Your task to perform on an android device: Open Maps and search for coffee Image 0: 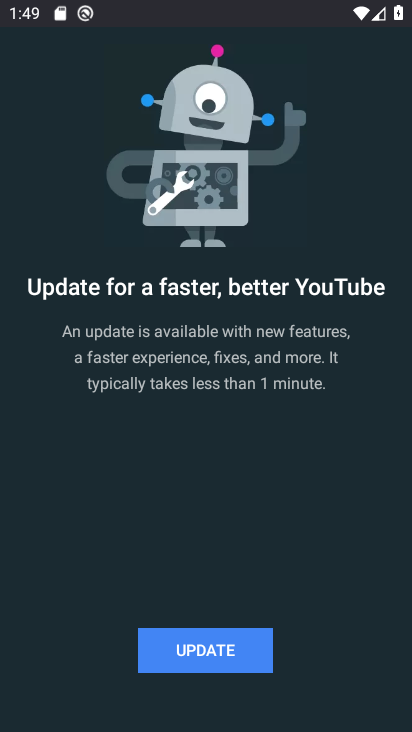
Step 0: press back button
Your task to perform on an android device: Open Maps and search for coffee Image 1: 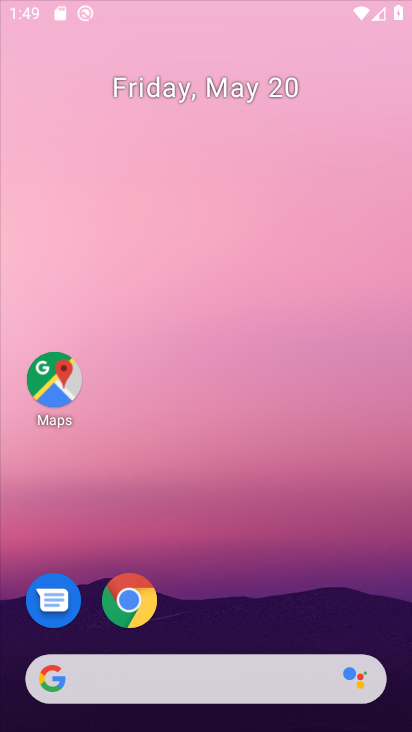
Step 1: press home button
Your task to perform on an android device: Open Maps and search for coffee Image 2: 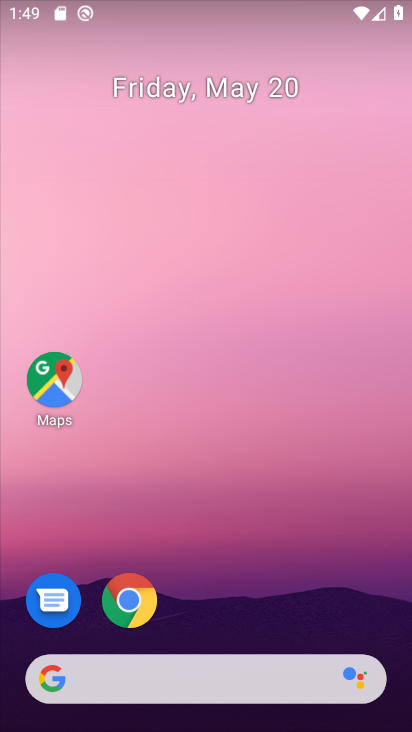
Step 2: drag from (277, 503) to (230, 730)
Your task to perform on an android device: Open Maps and search for coffee Image 3: 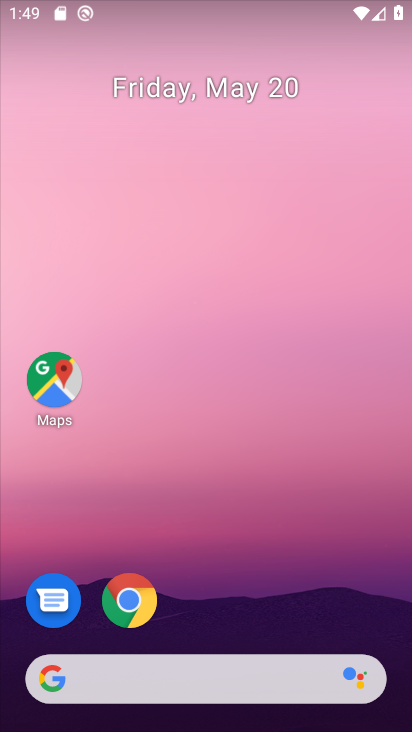
Step 3: click (63, 371)
Your task to perform on an android device: Open Maps and search for coffee Image 4: 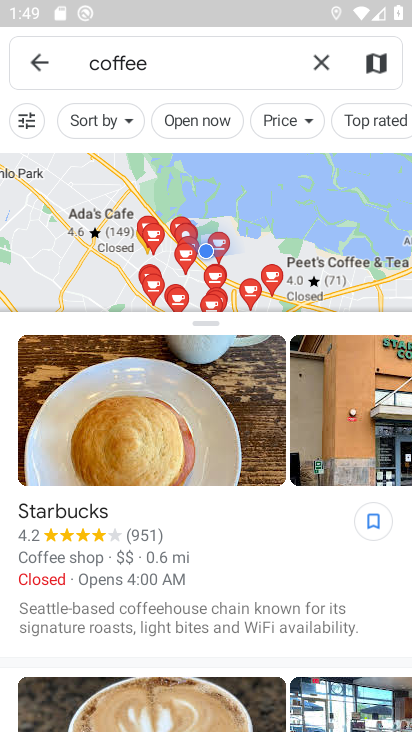
Step 4: task complete